Your task to perform on an android device: check battery use Image 0: 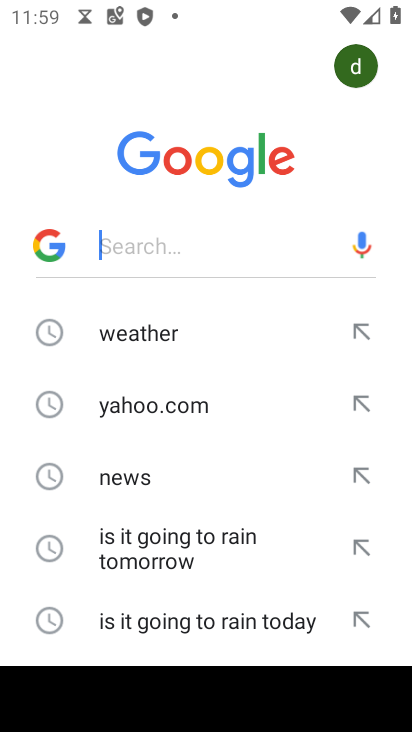
Step 0: press home button
Your task to perform on an android device: check battery use Image 1: 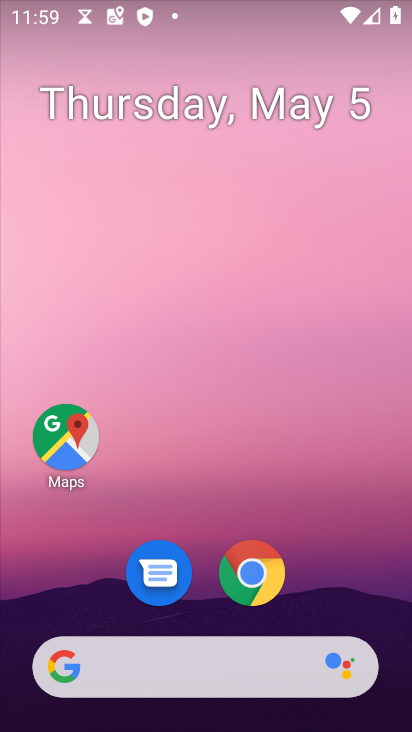
Step 1: drag from (323, 555) to (323, 266)
Your task to perform on an android device: check battery use Image 2: 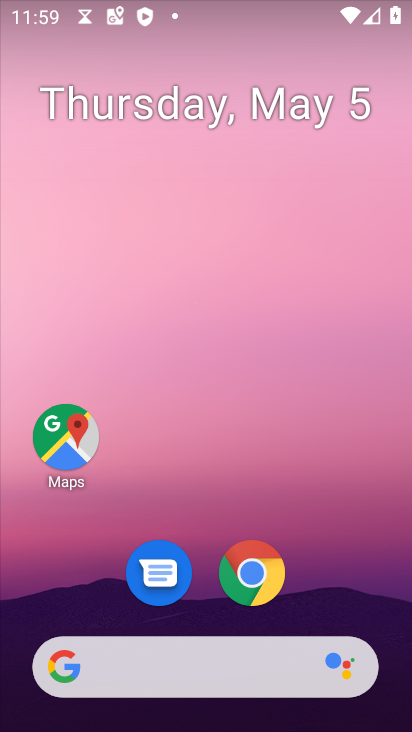
Step 2: drag from (330, 520) to (295, 209)
Your task to perform on an android device: check battery use Image 3: 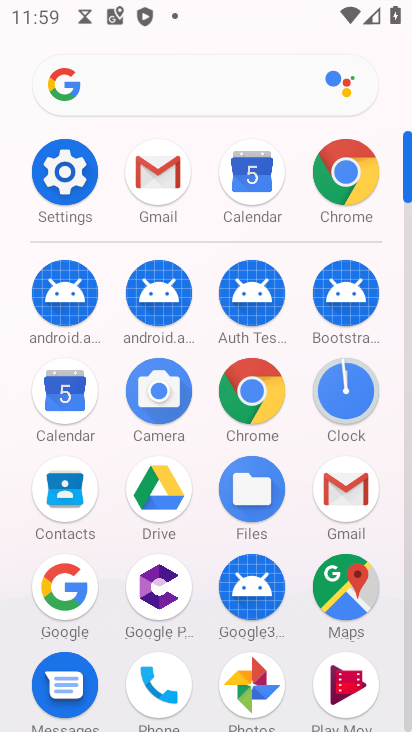
Step 3: click (57, 167)
Your task to perform on an android device: check battery use Image 4: 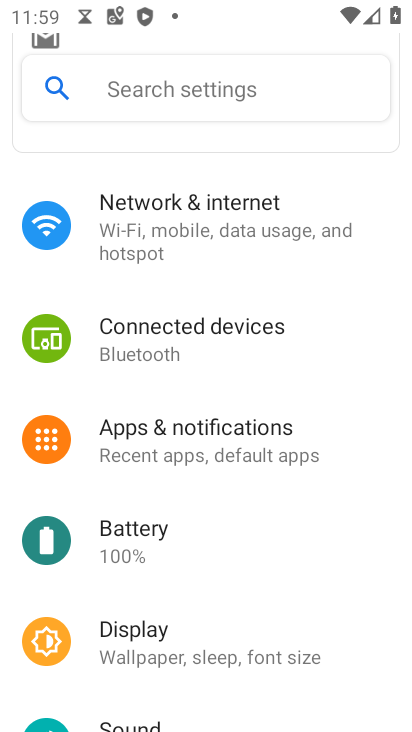
Step 4: click (185, 546)
Your task to perform on an android device: check battery use Image 5: 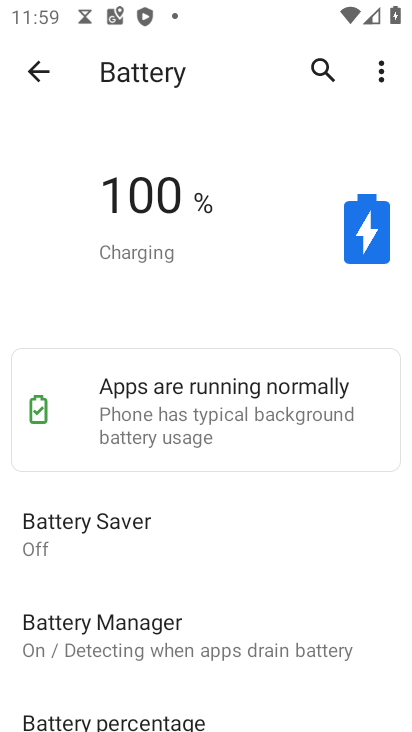
Step 5: drag from (221, 678) to (217, 389)
Your task to perform on an android device: check battery use Image 6: 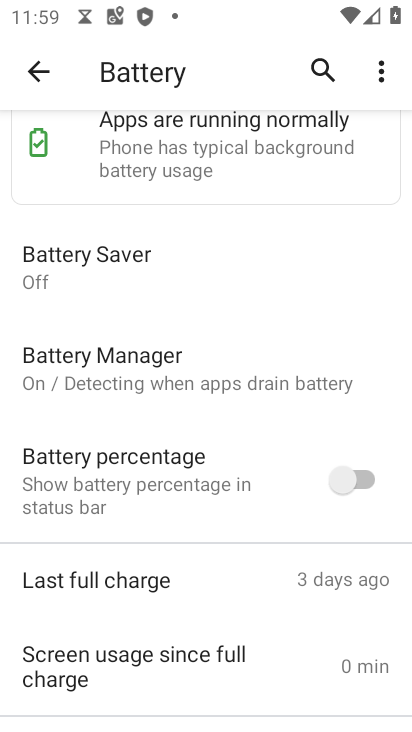
Step 6: click (171, 384)
Your task to perform on an android device: check battery use Image 7: 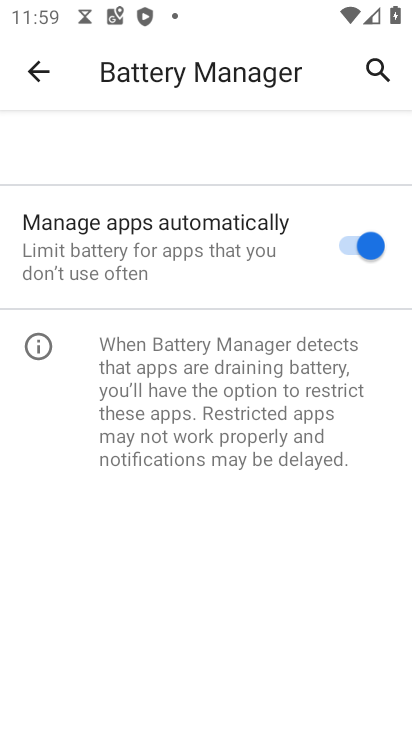
Step 7: drag from (137, 269) to (149, 346)
Your task to perform on an android device: check battery use Image 8: 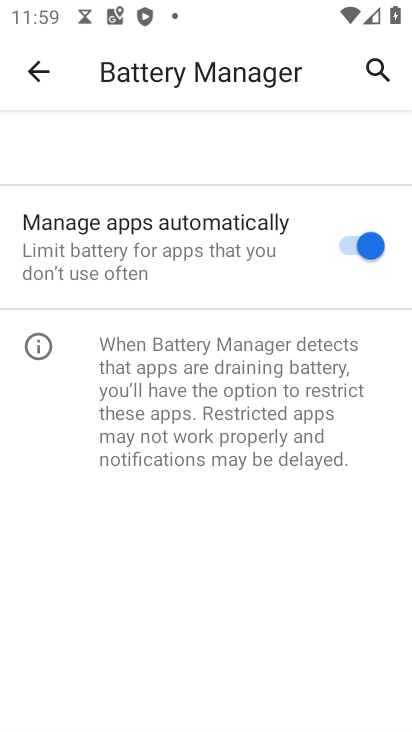
Step 8: click (33, 66)
Your task to perform on an android device: check battery use Image 9: 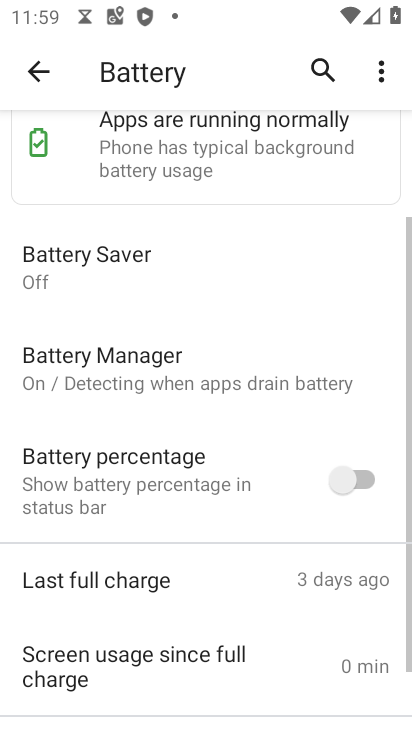
Step 9: drag from (228, 686) to (183, 644)
Your task to perform on an android device: check battery use Image 10: 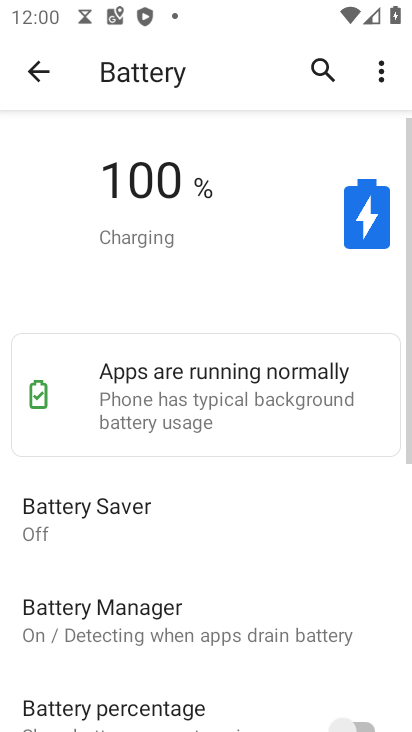
Step 10: click (119, 377)
Your task to perform on an android device: check battery use Image 11: 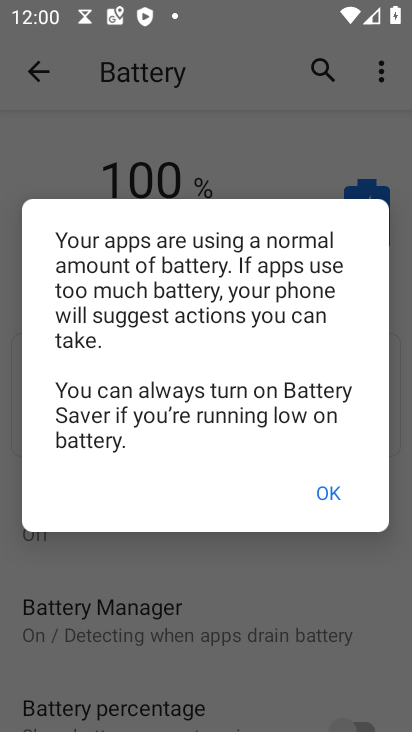
Step 11: click (344, 499)
Your task to perform on an android device: check battery use Image 12: 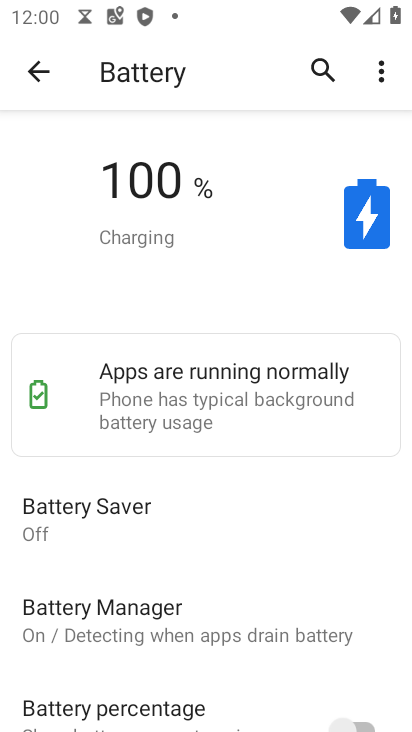
Step 12: click (148, 621)
Your task to perform on an android device: check battery use Image 13: 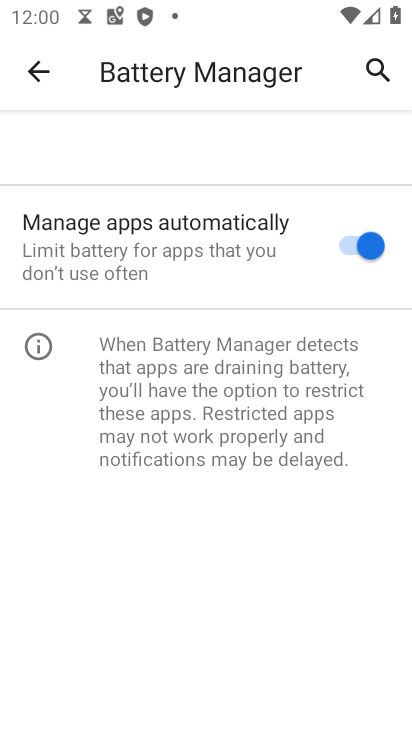
Step 13: click (33, 76)
Your task to perform on an android device: check battery use Image 14: 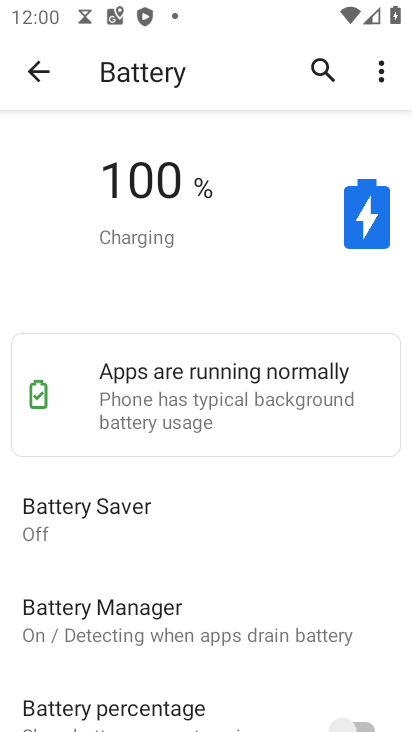
Step 14: task complete